Your task to perform on an android device: set the timer Image 0: 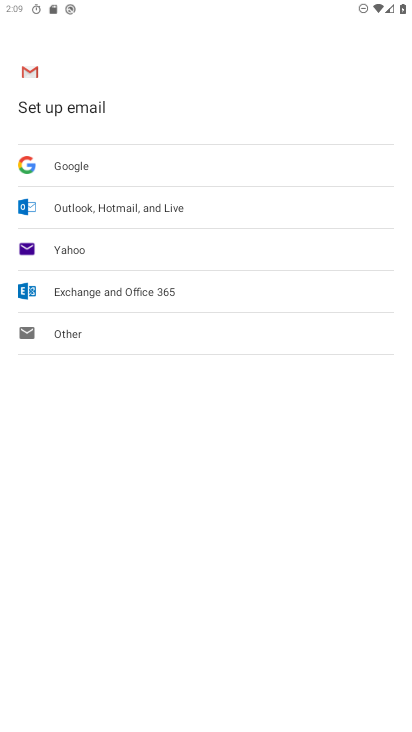
Step 0: press home button
Your task to perform on an android device: set the timer Image 1: 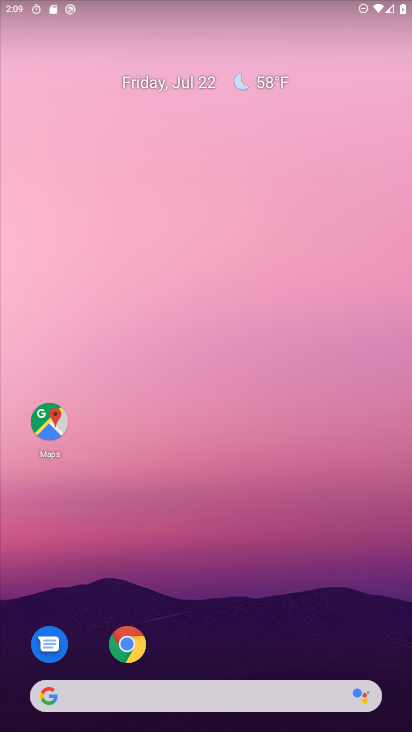
Step 1: drag from (198, 649) to (222, 177)
Your task to perform on an android device: set the timer Image 2: 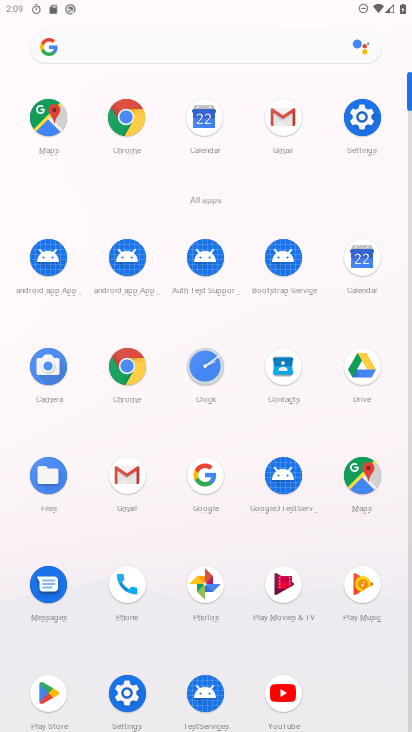
Step 2: click (208, 363)
Your task to perform on an android device: set the timer Image 3: 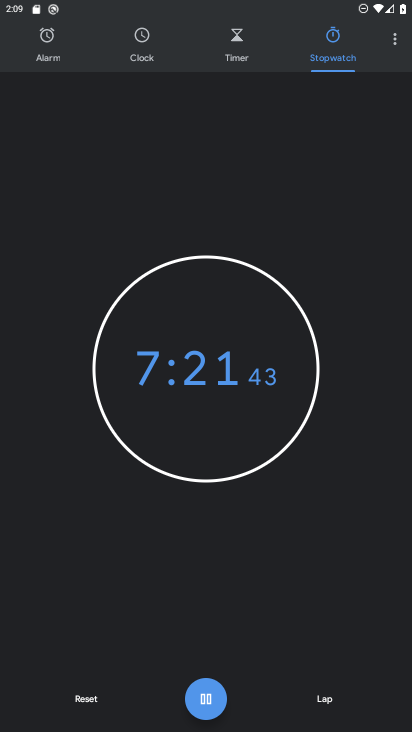
Step 3: click (241, 48)
Your task to perform on an android device: set the timer Image 4: 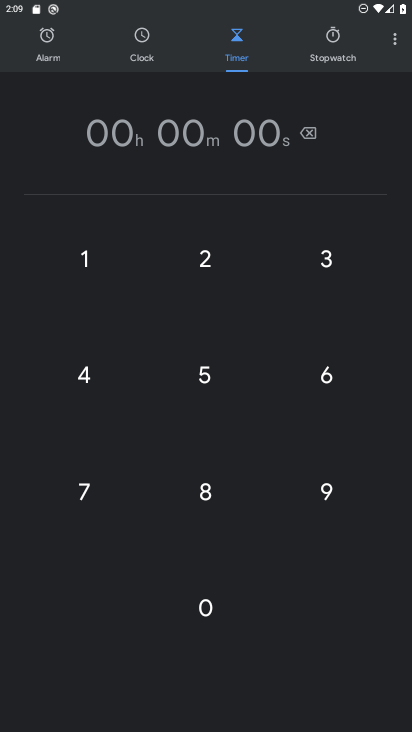
Step 4: type "11"
Your task to perform on an android device: set the timer Image 5: 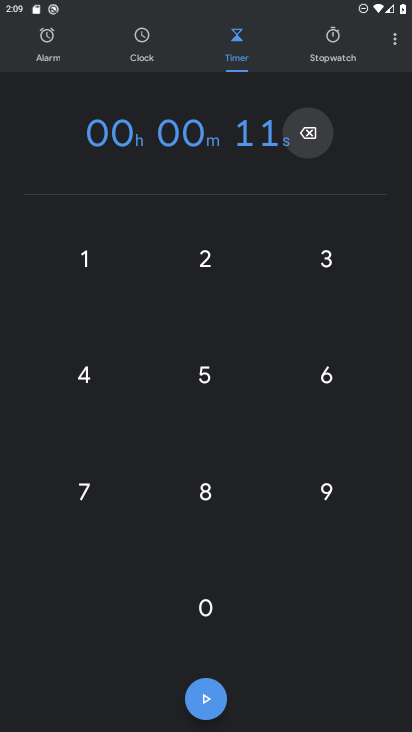
Step 5: click (215, 686)
Your task to perform on an android device: set the timer Image 6: 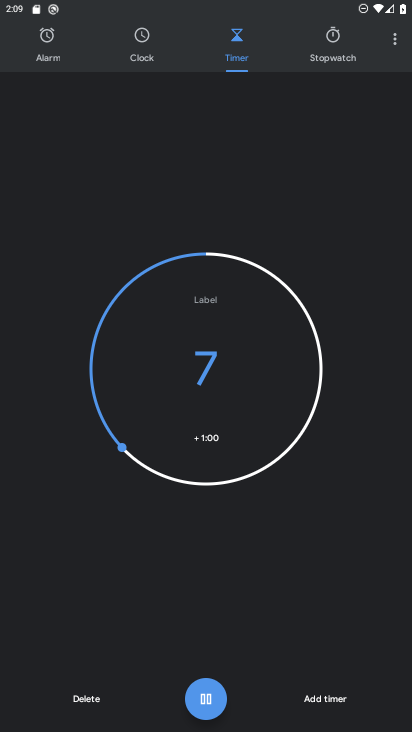
Step 6: task complete